Your task to perform on an android device: Search for the best selling TV on Best Buy. Image 0: 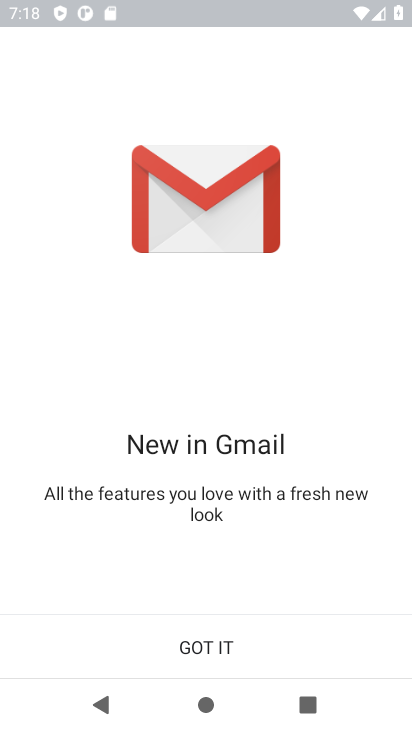
Step 0: press home button
Your task to perform on an android device: Search for the best selling TV on Best Buy. Image 1: 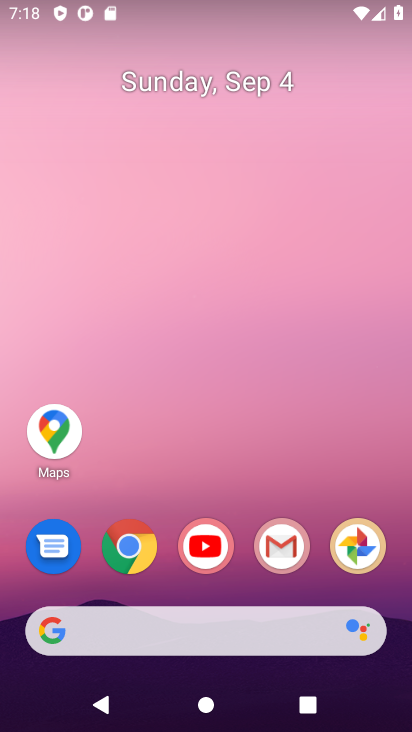
Step 1: click (126, 549)
Your task to perform on an android device: Search for the best selling TV on Best Buy. Image 2: 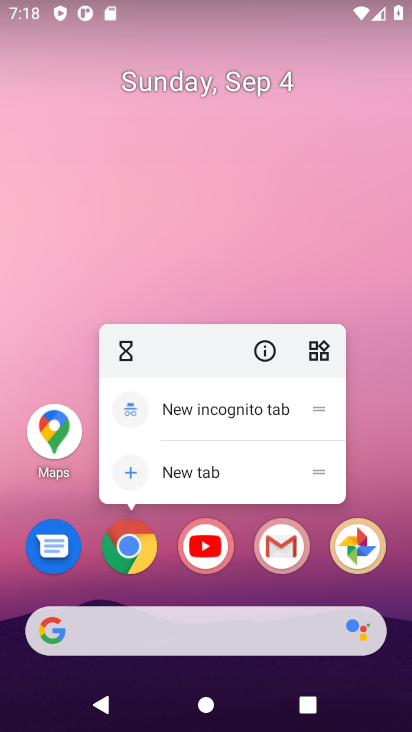
Step 2: click (119, 553)
Your task to perform on an android device: Search for the best selling TV on Best Buy. Image 3: 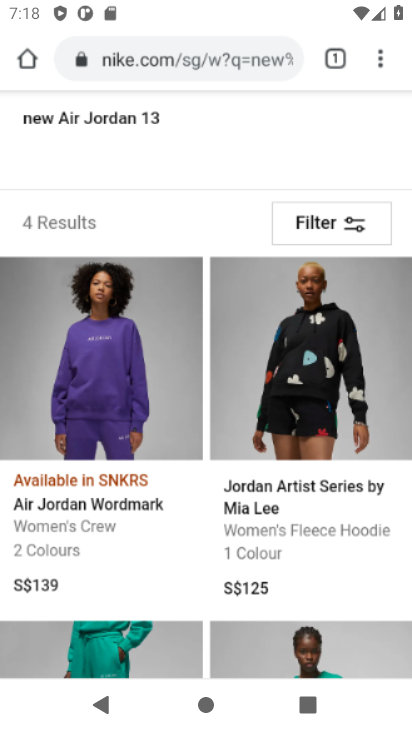
Step 3: click (216, 74)
Your task to perform on an android device: Search for the best selling TV on Best Buy. Image 4: 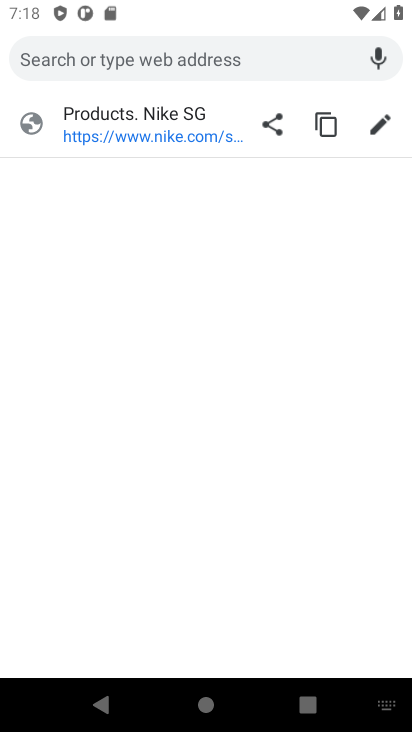
Step 4: type "best buy"
Your task to perform on an android device: Search for the best selling TV on Best Buy. Image 5: 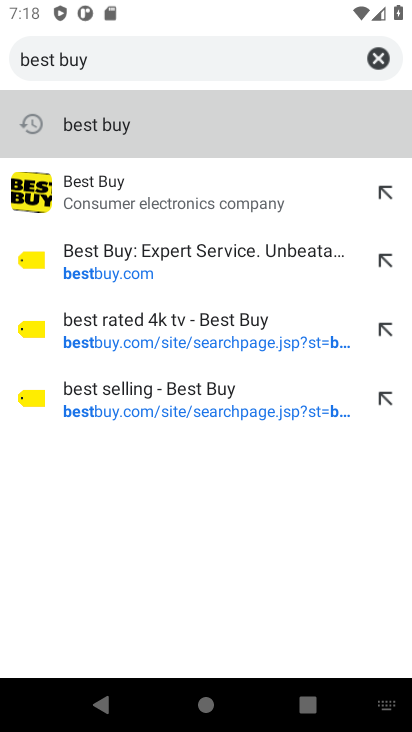
Step 5: click (75, 129)
Your task to perform on an android device: Search for the best selling TV on Best Buy. Image 6: 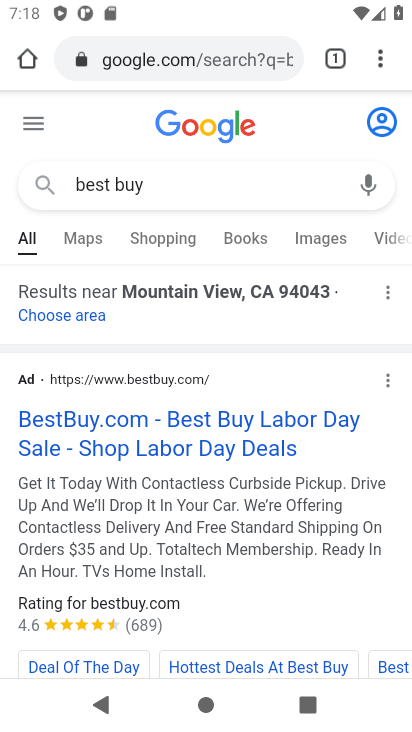
Step 6: click (61, 424)
Your task to perform on an android device: Search for the best selling TV on Best Buy. Image 7: 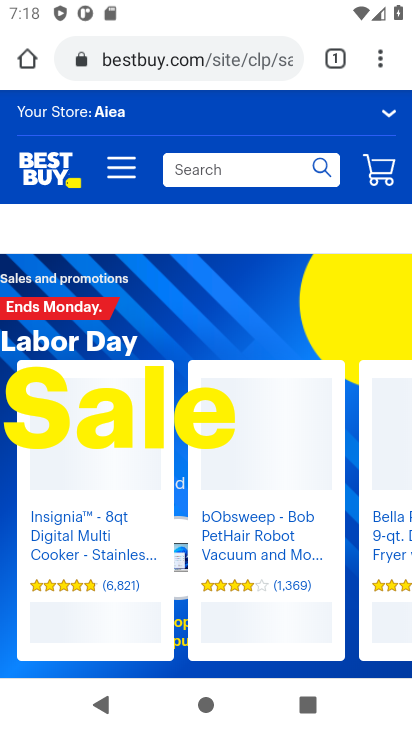
Step 7: click (319, 169)
Your task to perform on an android device: Search for the best selling TV on Best Buy. Image 8: 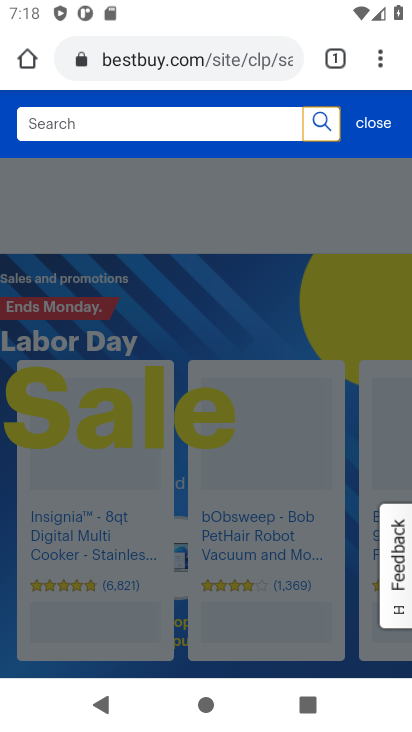
Step 8: type "best selling TV"
Your task to perform on an android device: Search for the best selling TV on Best Buy. Image 9: 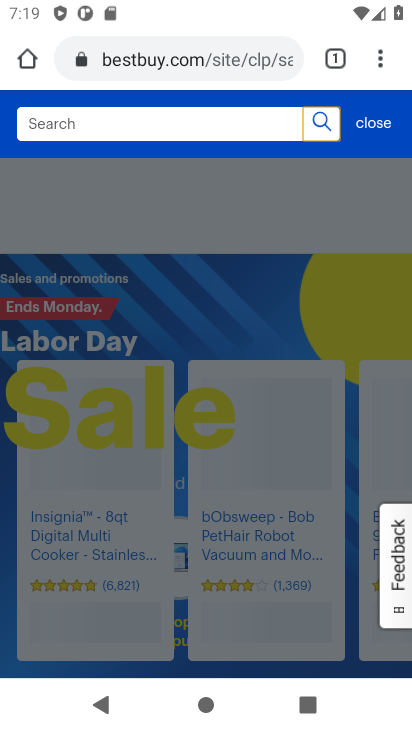
Step 9: click (70, 130)
Your task to perform on an android device: Search for the best selling TV on Best Buy. Image 10: 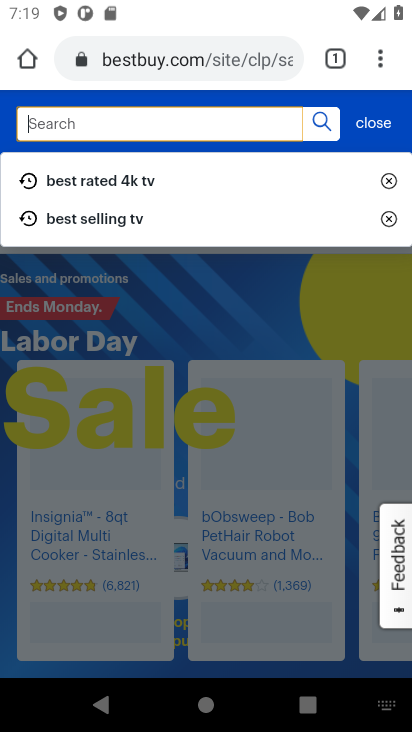
Step 10: type "best selling TV"
Your task to perform on an android device: Search for the best selling TV on Best Buy. Image 11: 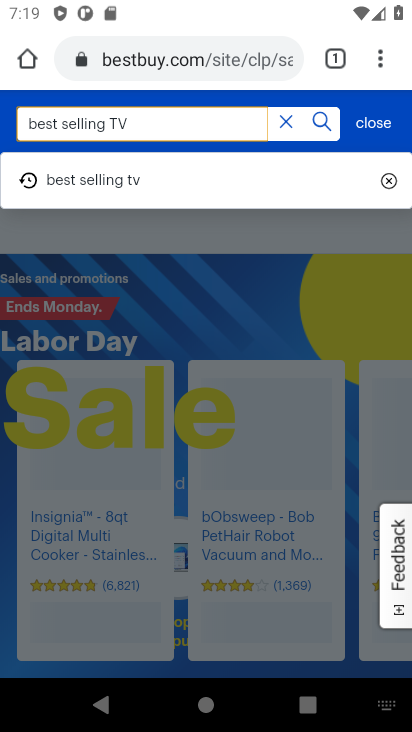
Step 11: click (323, 121)
Your task to perform on an android device: Search for the best selling TV on Best Buy. Image 12: 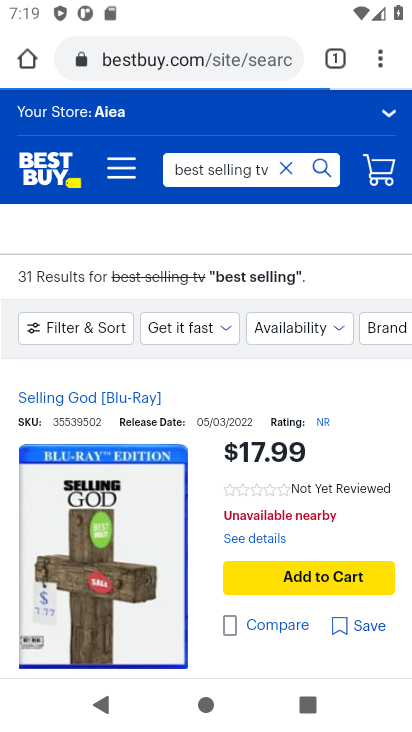
Step 12: task complete